Your task to perform on an android device: create a new album in the google photos Image 0: 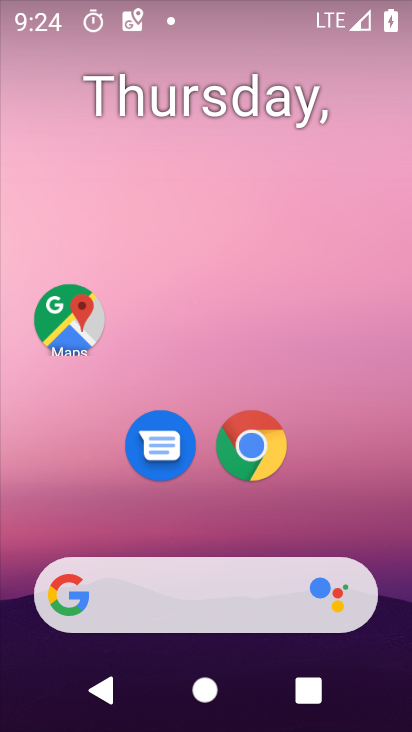
Step 0: drag from (184, 475) to (207, 247)
Your task to perform on an android device: create a new album in the google photos Image 1: 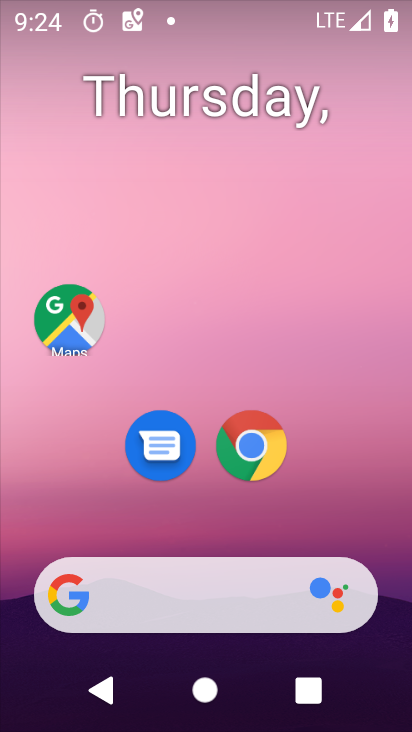
Step 1: drag from (179, 530) to (220, 218)
Your task to perform on an android device: create a new album in the google photos Image 2: 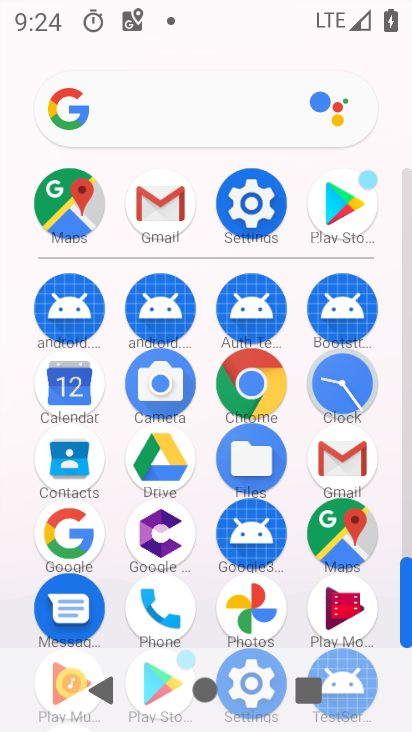
Step 2: click (245, 599)
Your task to perform on an android device: create a new album in the google photos Image 3: 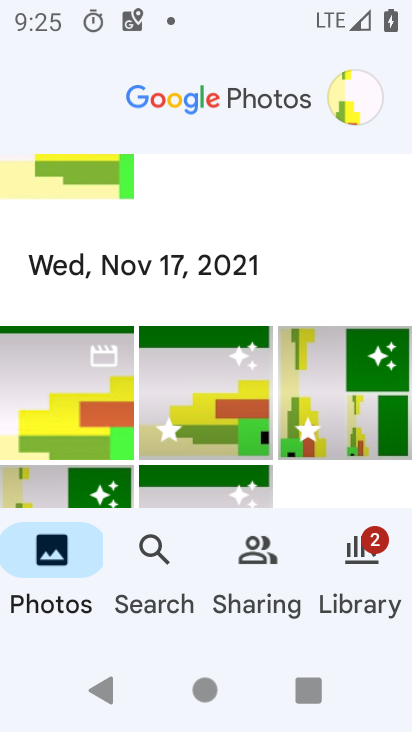
Step 3: click (360, 546)
Your task to perform on an android device: create a new album in the google photos Image 4: 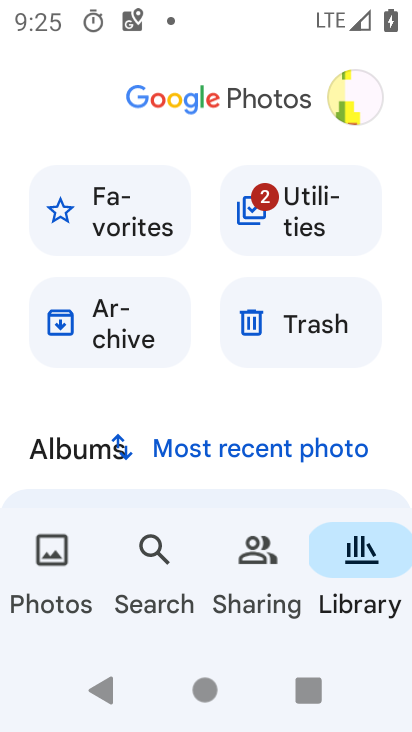
Step 4: drag from (141, 459) to (169, 249)
Your task to perform on an android device: create a new album in the google photos Image 5: 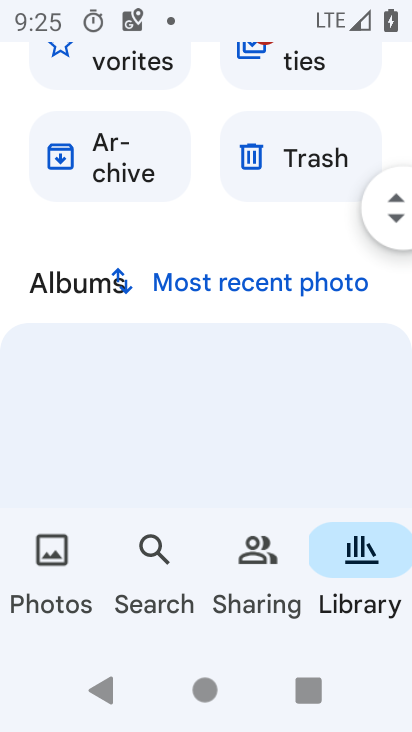
Step 5: drag from (221, 449) to (236, 200)
Your task to perform on an android device: create a new album in the google photos Image 6: 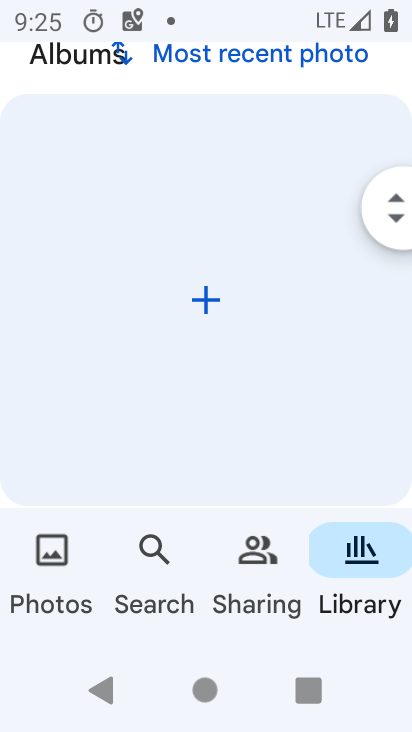
Step 6: click (214, 293)
Your task to perform on an android device: create a new album in the google photos Image 7: 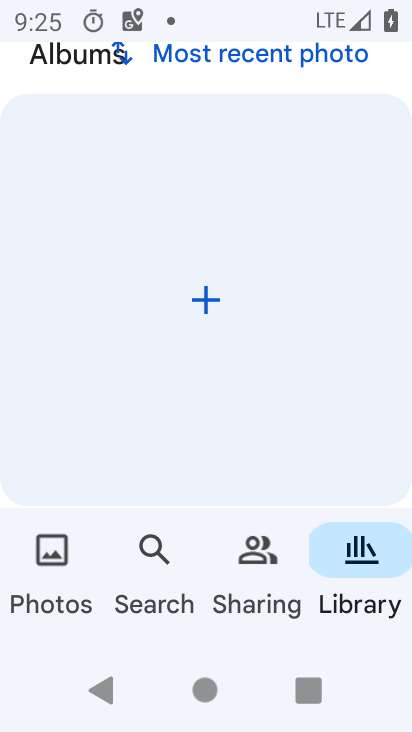
Step 7: click (198, 312)
Your task to perform on an android device: create a new album in the google photos Image 8: 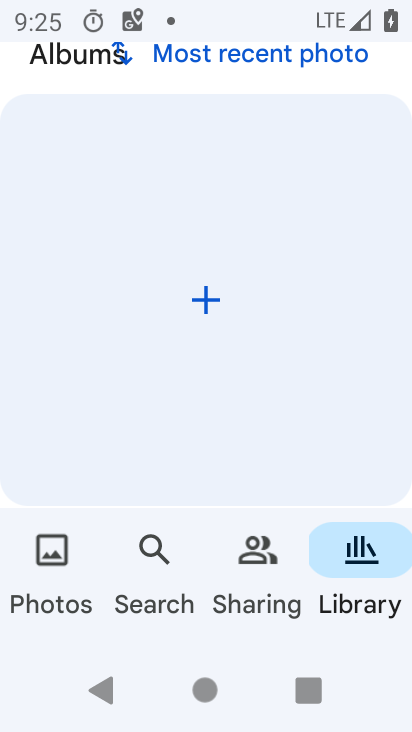
Step 8: click (203, 295)
Your task to perform on an android device: create a new album in the google photos Image 9: 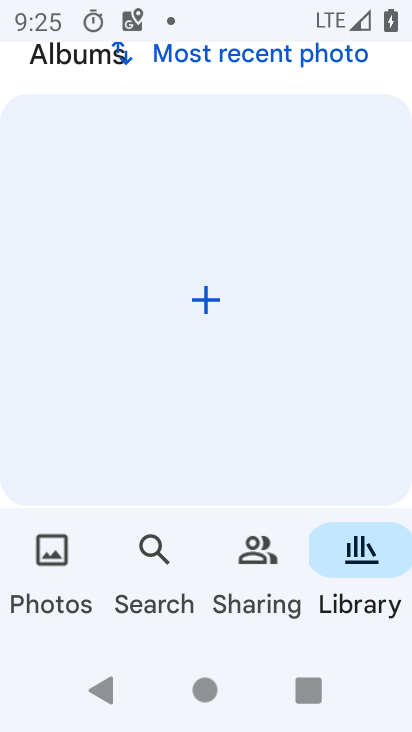
Step 9: click (203, 294)
Your task to perform on an android device: create a new album in the google photos Image 10: 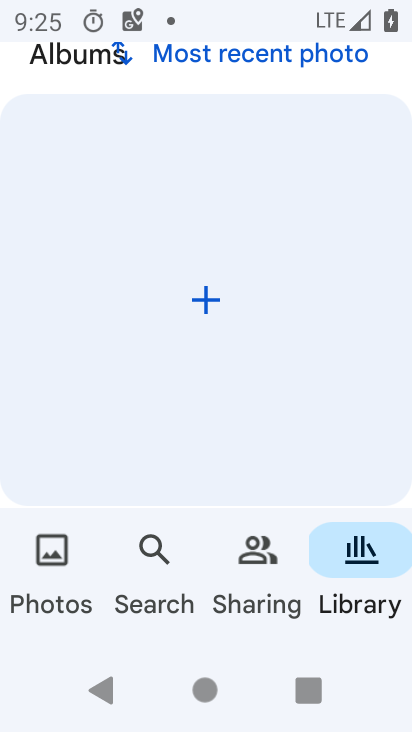
Step 10: click (203, 293)
Your task to perform on an android device: create a new album in the google photos Image 11: 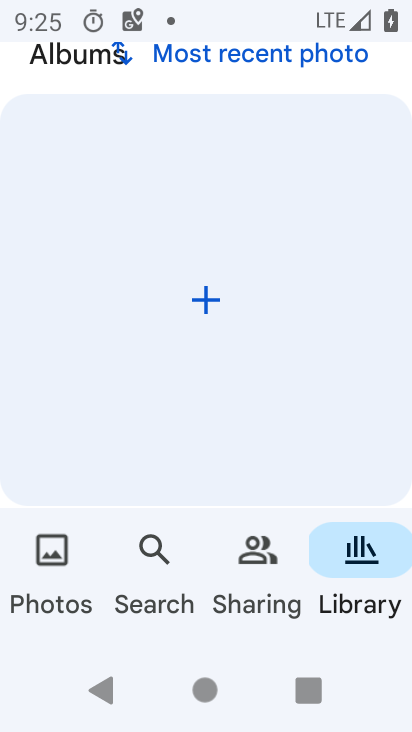
Step 11: drag from (230, 410) to (317, 150)
Your task to perform on an android device: create a new album in the google photos Image 12: 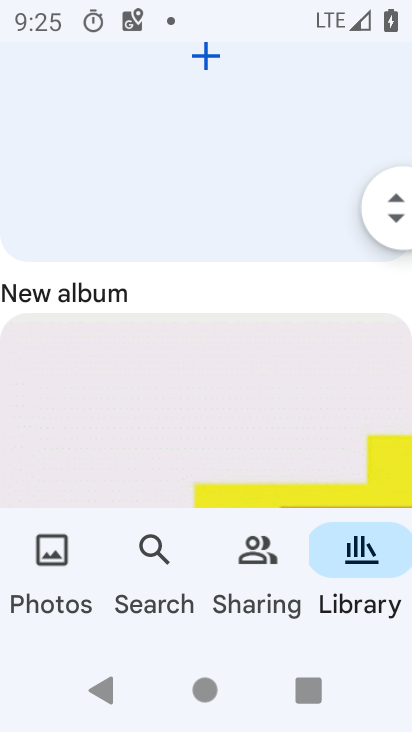
Step 12: click (203, 56)
Your task to perform on an android device: create a new album in the google photos Image 13: 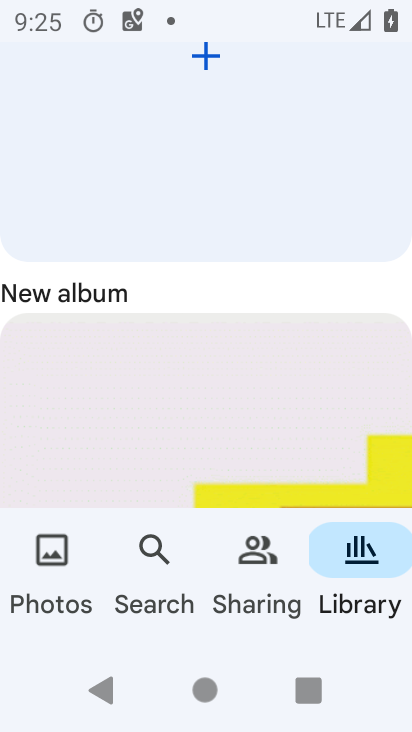
Step 13: task complete